Your task to perform on an android device: toggle javascript in the chrome app Image 0: 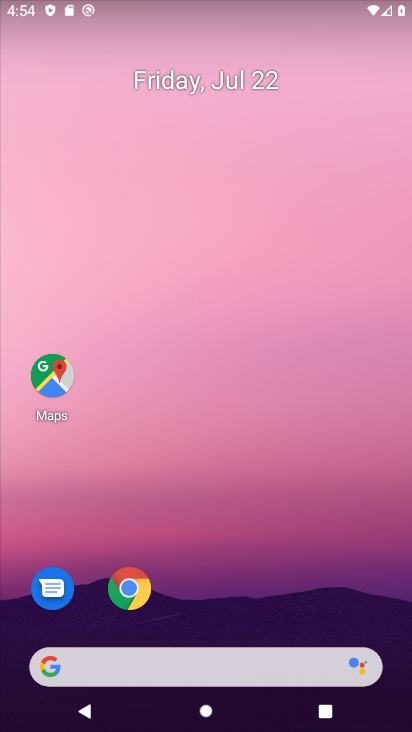
Step 0: click (137, 591)
Your task to perform on an android device: toggle javascript in the chrome app Image 1: 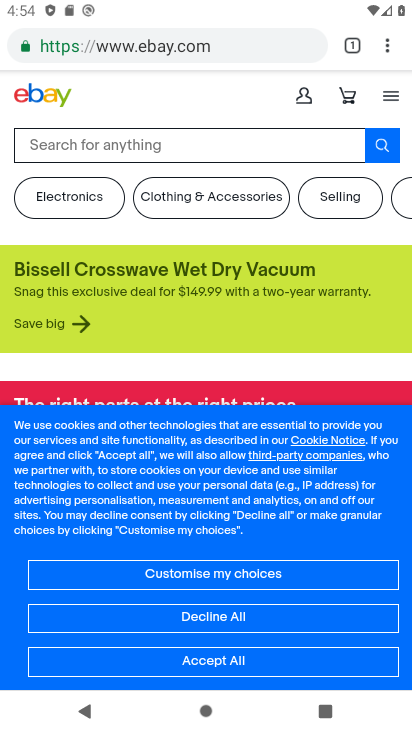
Step 1: task complete